Your task to perform on an android device: Open Android settings Image 0: 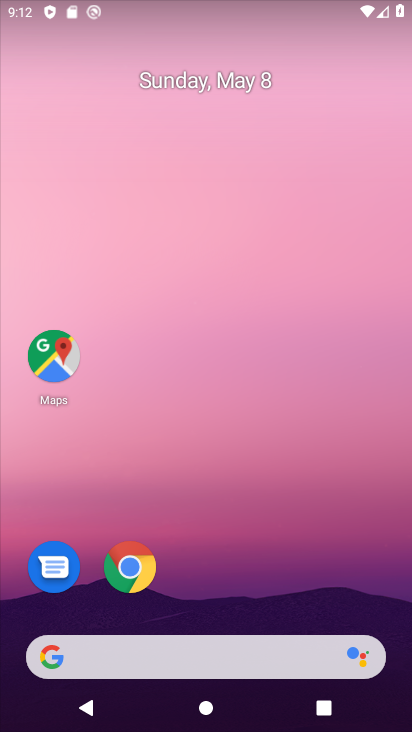
Step 0: drag from (238, 565) to (12, 42)
Your task to perform on an android device: Open Android settings Image 1: 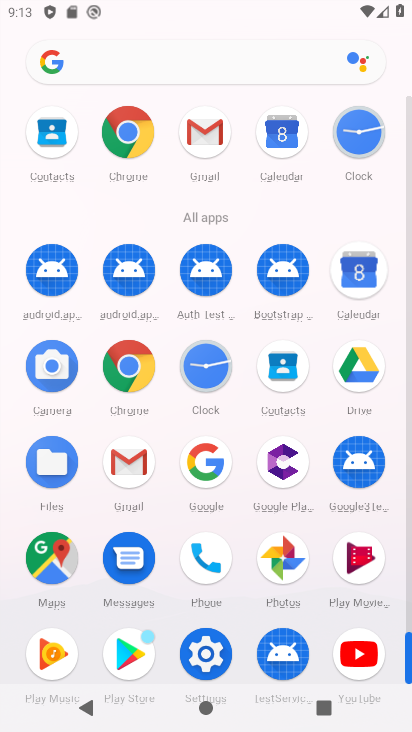
Step 1: press home button
Your task to perform on an android device: Open Android settings Image 2: 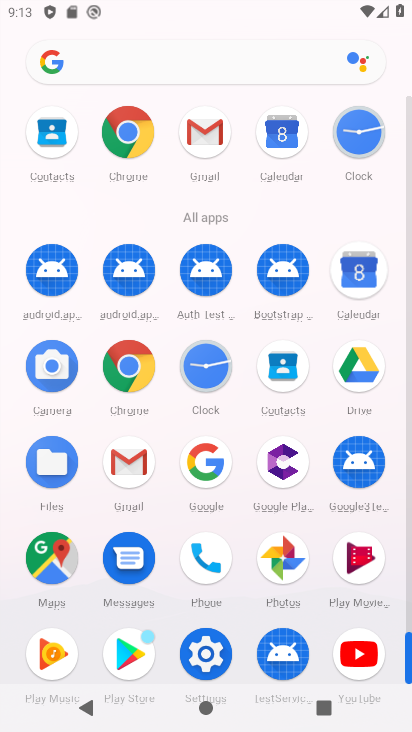
Step 2: press home button
Your task to perform on an android device: Open Android settings Image 3: 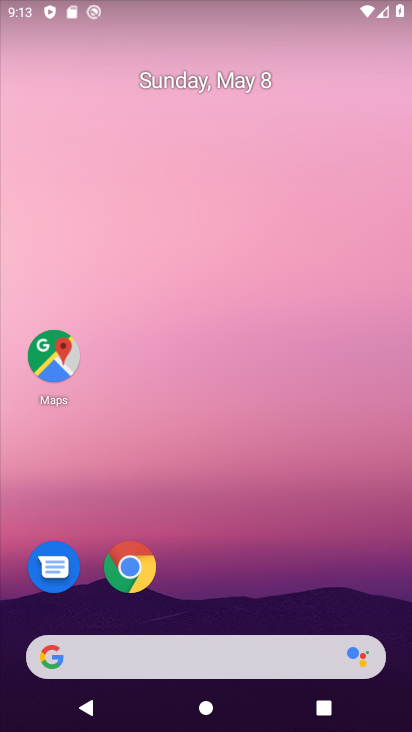
Step 3: drag from (256, 566) to (135, 5)
Your task to perform on an android device: Open Android settings Image 4: 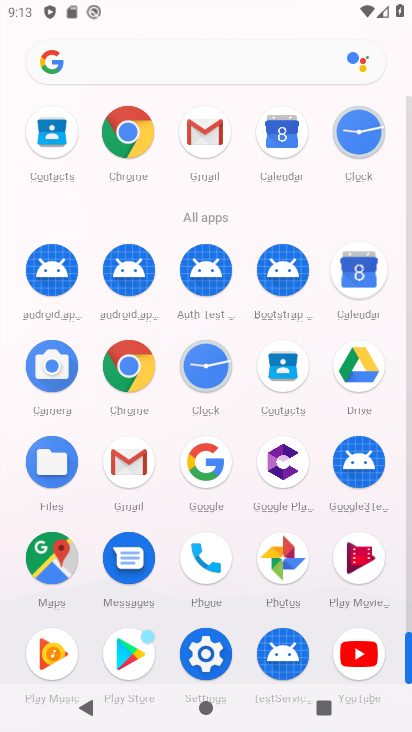
Step 4: click (204, 650)
Your task to perform on an android device: Open Android settings Image 5: 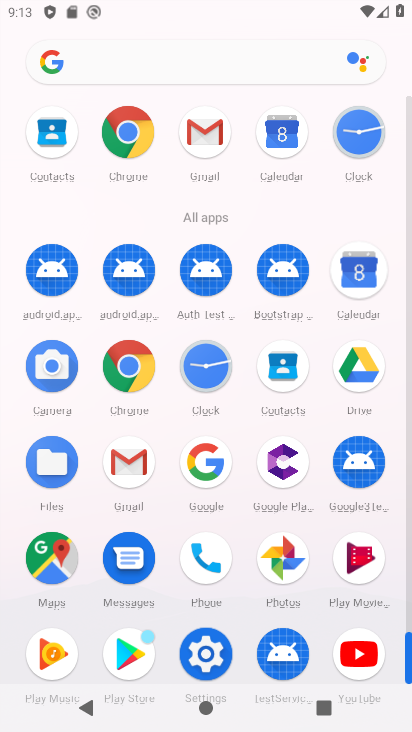
Step 5: click (205, 650)
Your task to perform on an android device: Open Android settings Image 6: 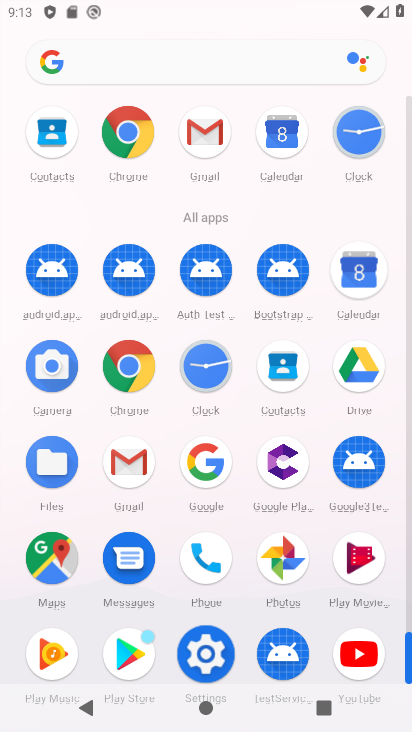
Step 6: click (206, 649)
Your task to perform on an android device: Open Android settings Image 7: 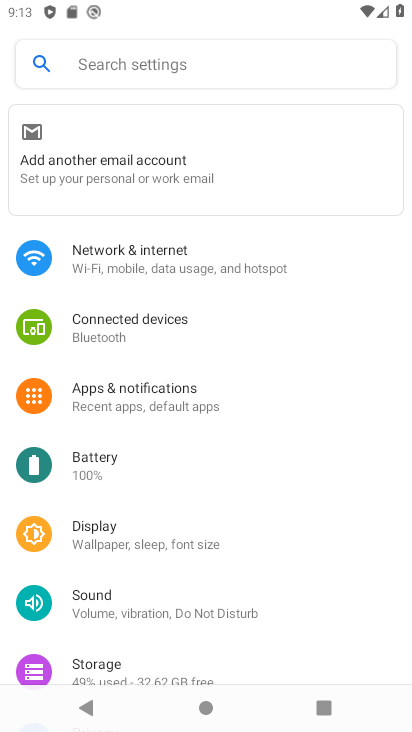
Step 7: drag from (192, 569) to (159, 36)
Your task to perform on an android device: Open Android settings Image 8: 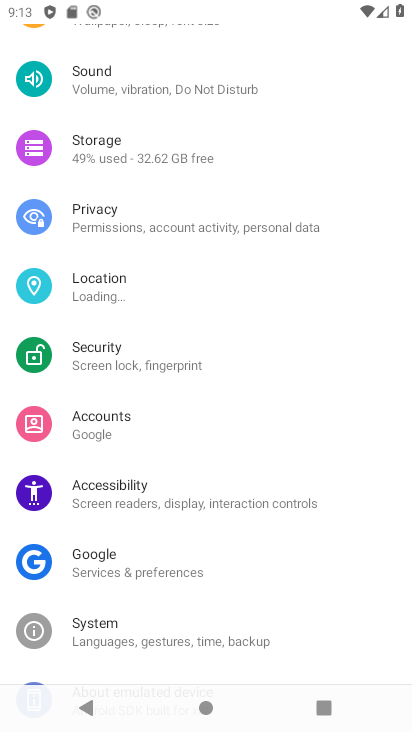
Step 8: drag from (196, 598) to (228, 90)
Your task to perform on an android device: Open Android settings Image 9: 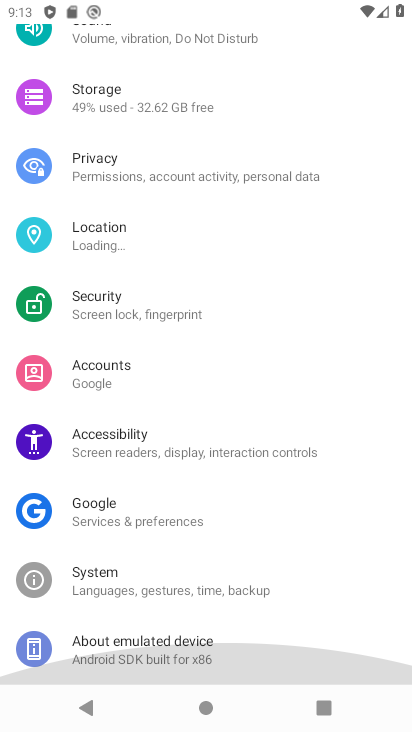
Step 9: drag from (251, 487) to (192, 21)
Your task to perform on an android device: Open Android settings Image 10: 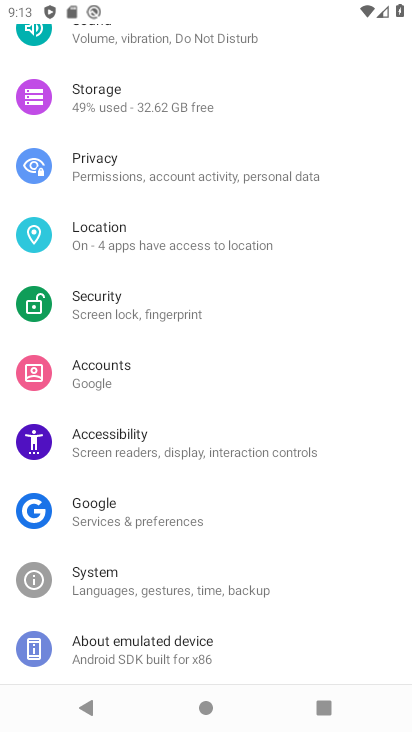
Step 10: click (99, 647)
Your task to perform on an android device: Open Android settings Image 11: 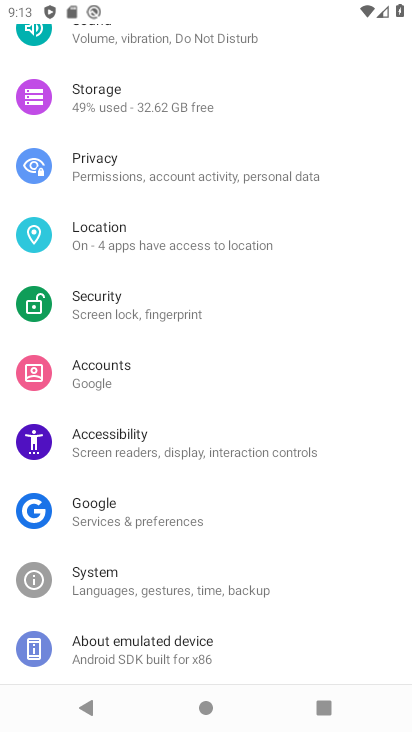
Step 11: click (99, 647)
Your task to perform on an android device: Open Android settings Image 12: 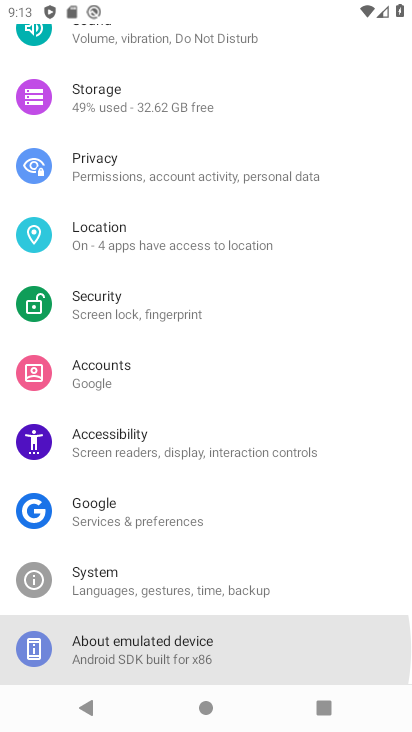
Step 12: click (99, 647)
Your task to perform on an android device: Open Android settings Image 13: 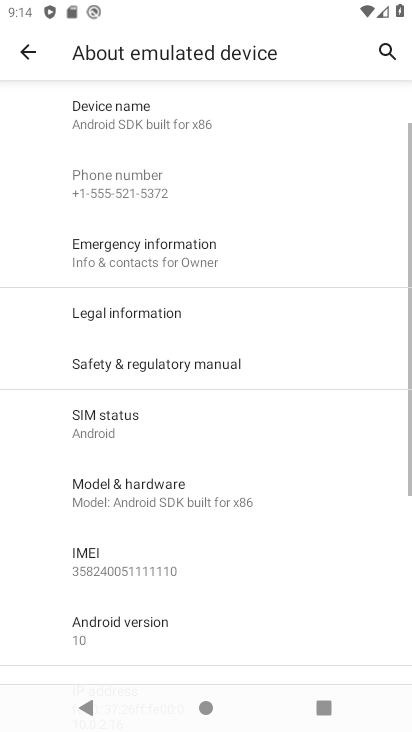
Step 13: task complete